Your task to perform on an android device: What is the news today? Image 0: 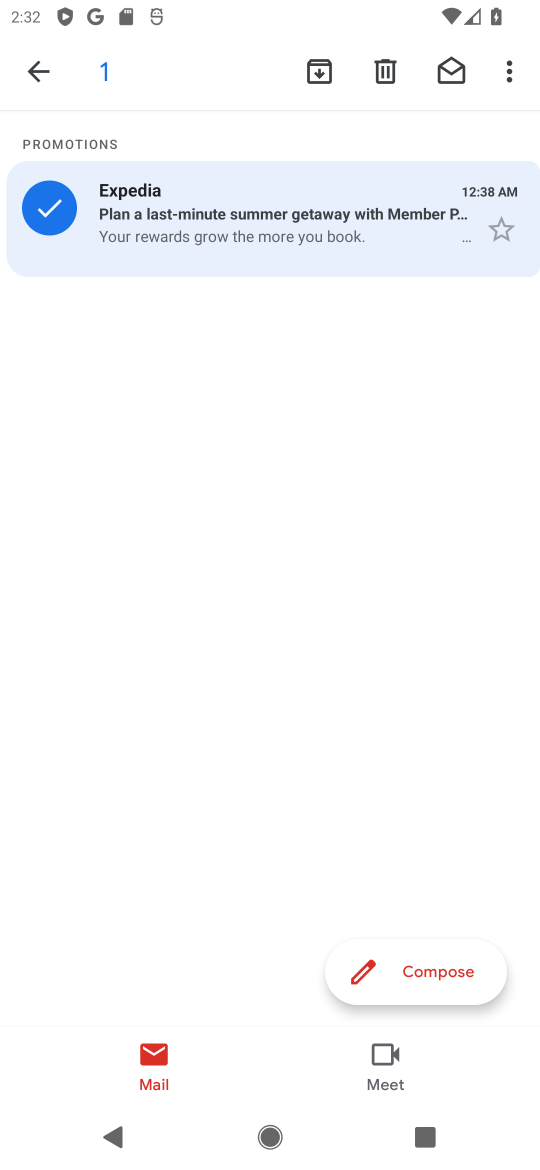
Step 0: press home button
Your task to perform on an android device: What is the news today? Image 1: 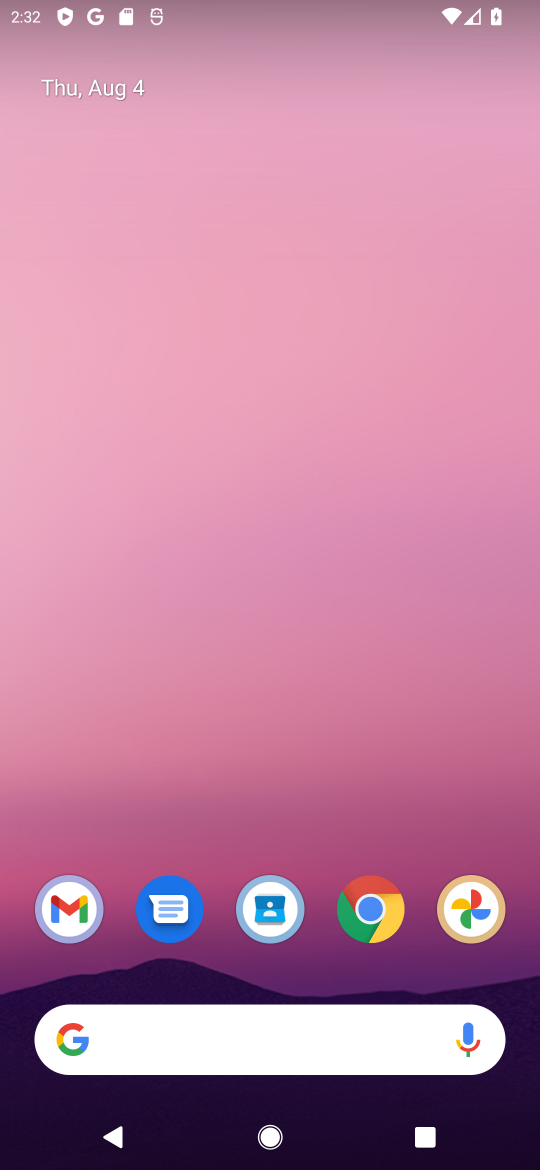
Step 1: click (176, 1038)
Your task to perform on an android device: What is the news today? Image 2: 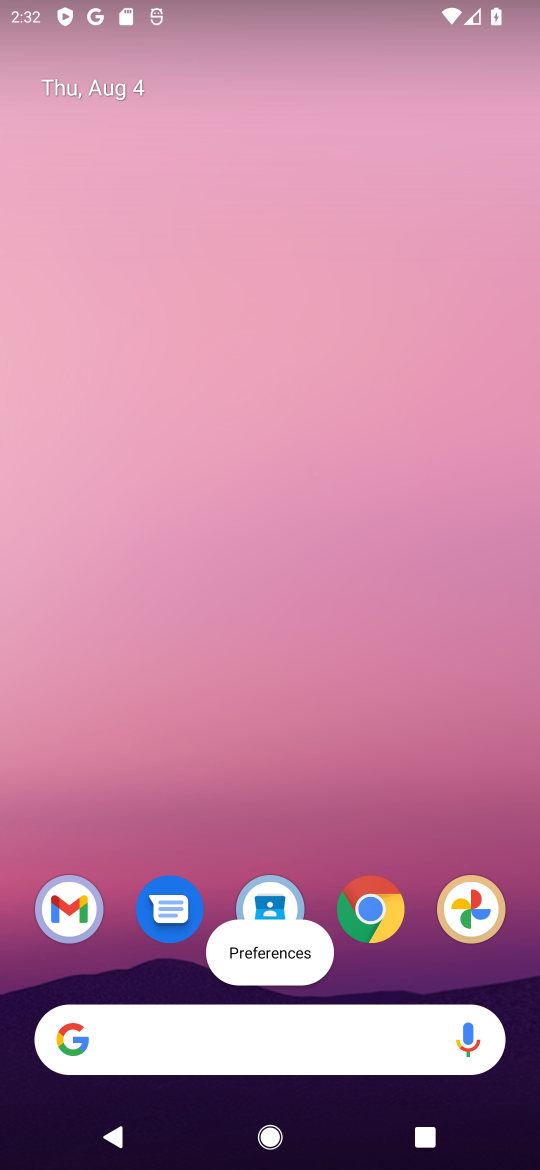
Step 2: click (218, 1031)
Your task to perform on an android device: What is the news today? Image 3: 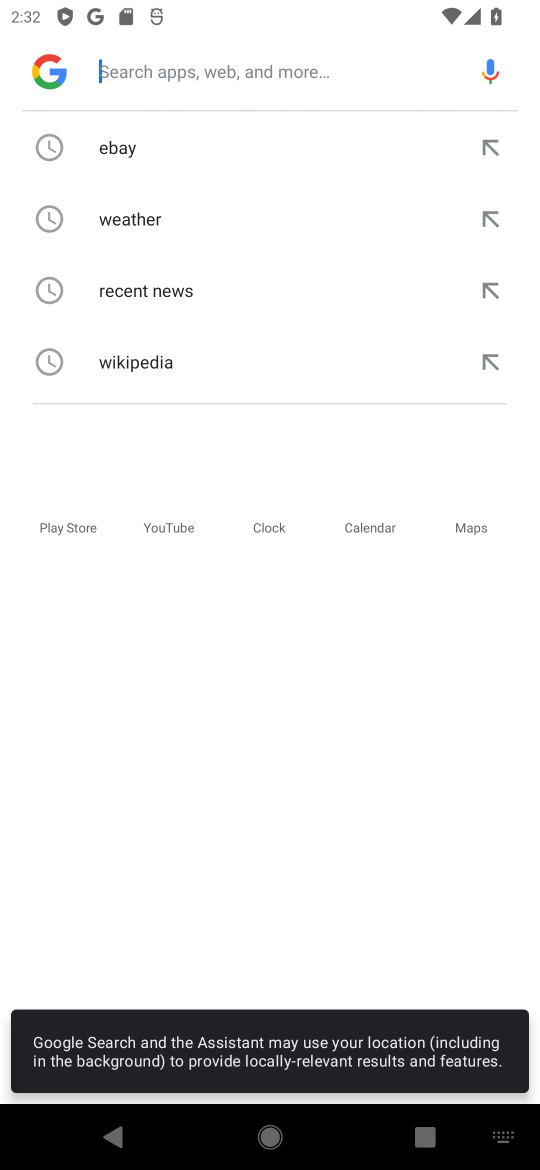
Step 3: click (144, 287)
Your task to perform on an android device: What is the news today? Image 4: 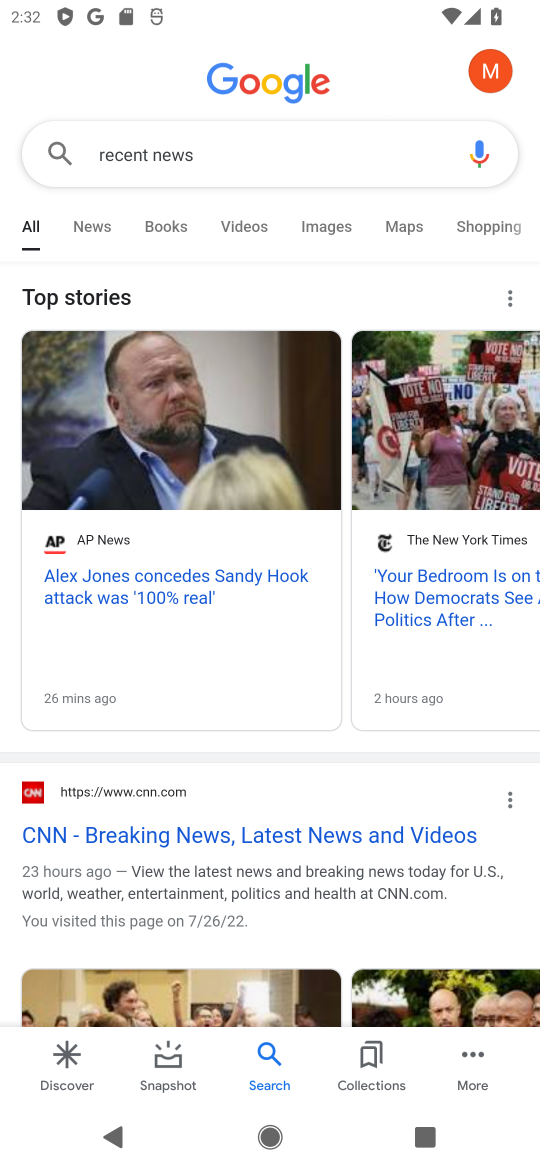
Step 4: click (82, 221)
Your task to perform on an android device: What is the news today? Image 5: 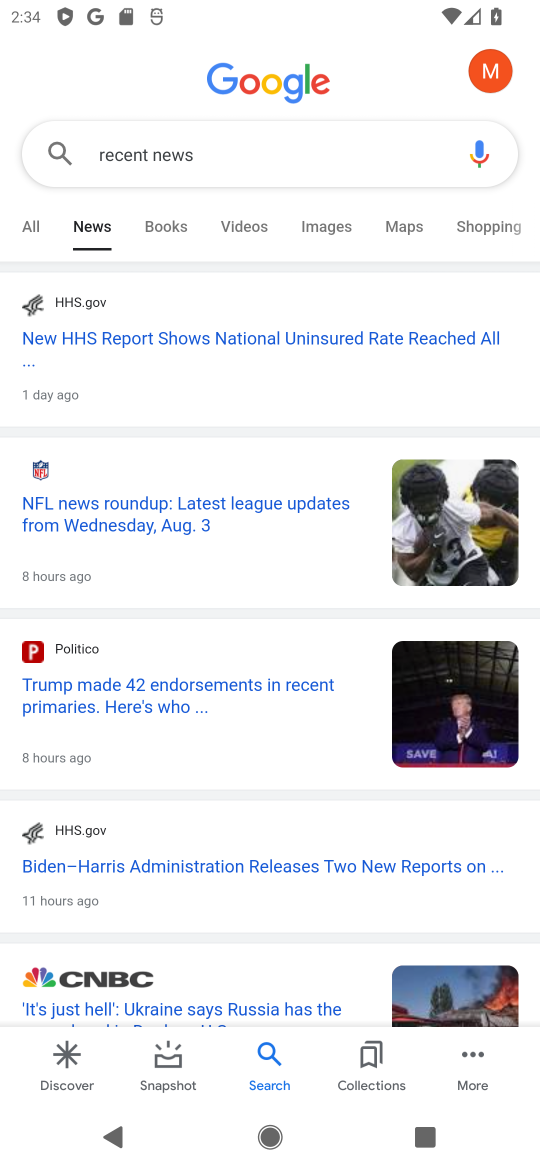
Step 5: task complete